Your task to perform on an android device: open app "Flipkart Online Shopping App" (install if not already installed) and go to login screen Image 0: 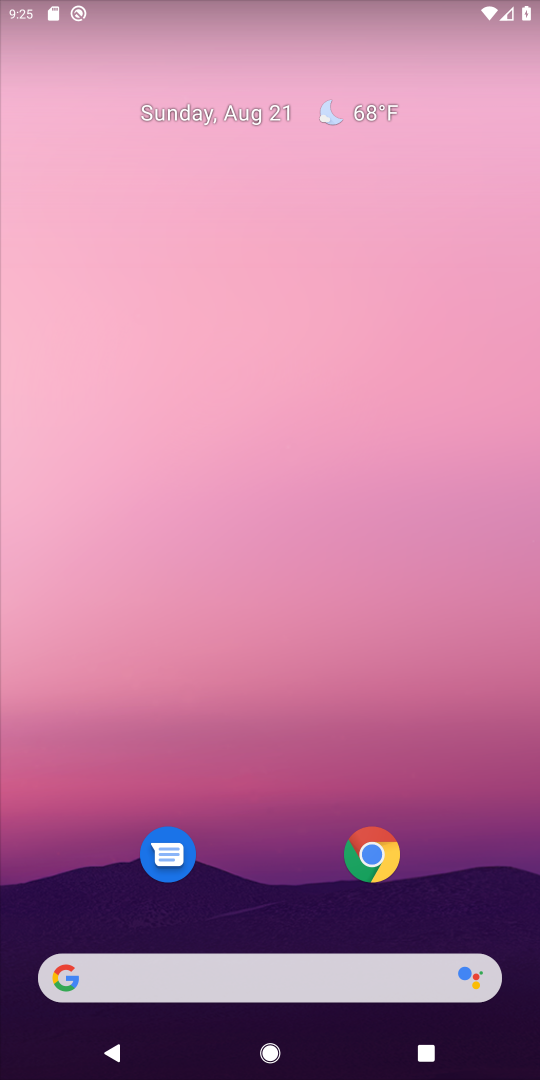
Step 0: drag from (302, 753) to (491, 1)
Your task to perform on an android device: open app "Flipkart Online Shopping App" (install if not already installed) and go to login screen Image 1: 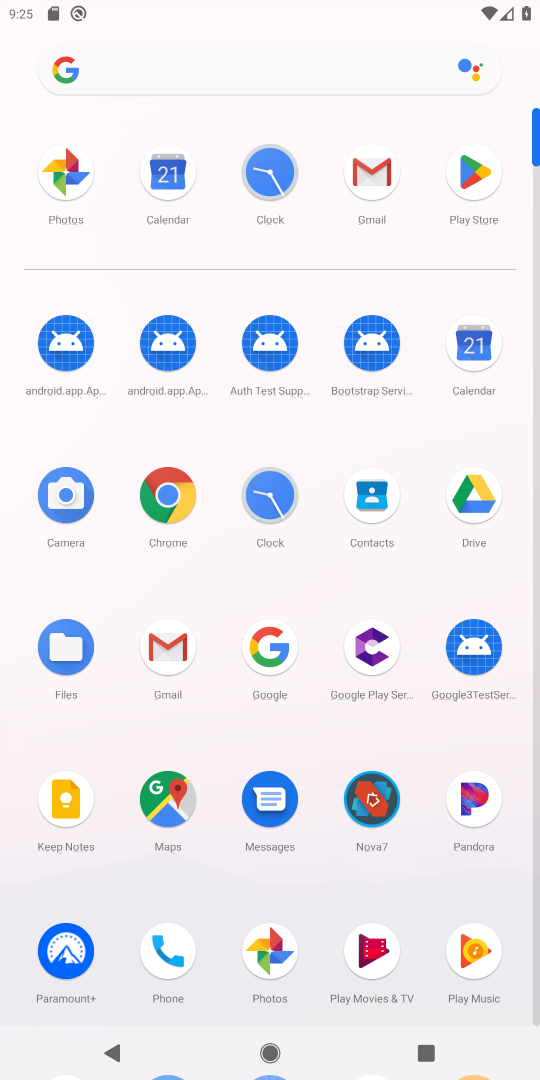
Step 1: click (471, 188)
Your task to perform on an android device: open app "Flipkart Online Shopping App" (install if not already installed) and go to login screen Image 2: 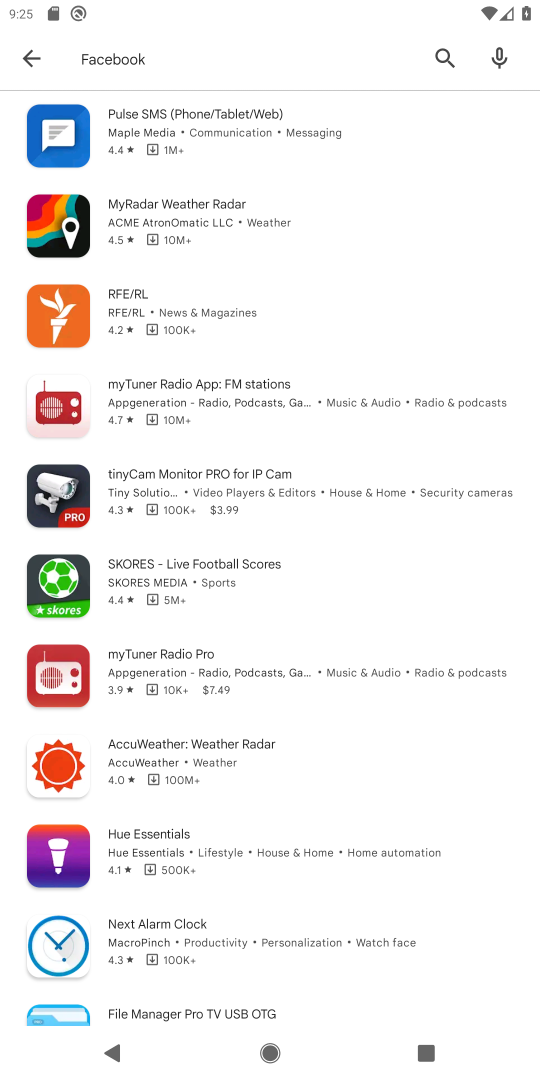
Step 2: click (446, 73)
Your task to perform on an android device: open app "Flipkart Online Shopping App" (install if not already installed) and go to login screen Image 3: 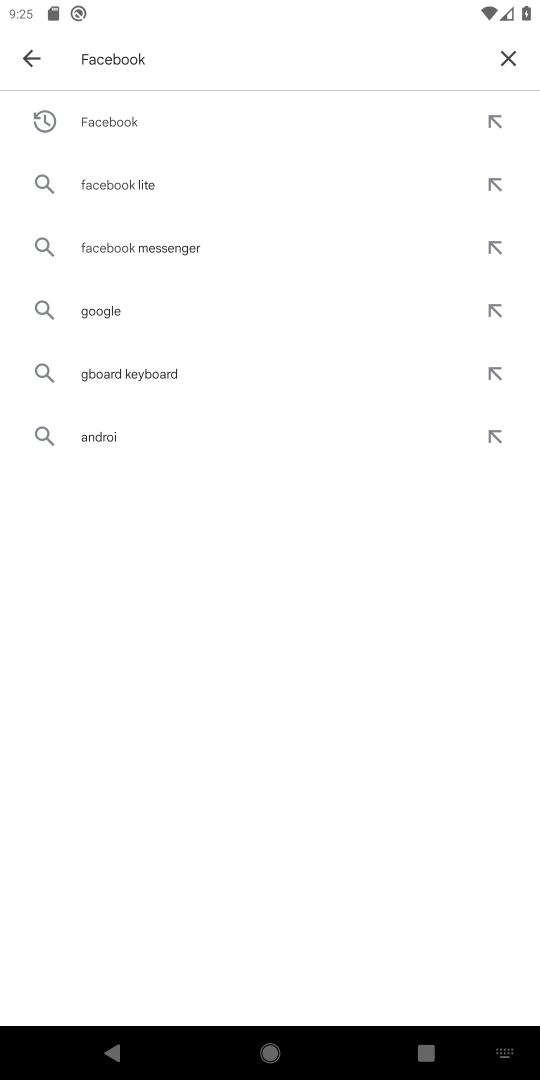
Step 3: click (516, 63)
Your task to perform on an android device: open app "Flipkart Online Shopping App" (install if not already installed) and go to login screen Image 4: 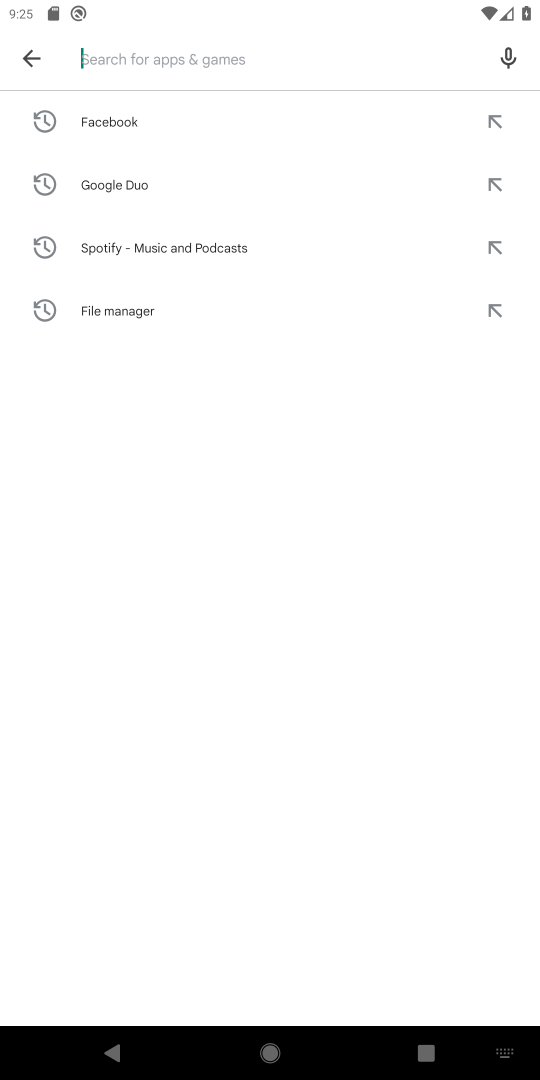
Step 4: type "flipkart"
Your task to perform on an android device: open app "Flipkart Online Shopping App" (install if not already installed) and go to login screen Image 5: 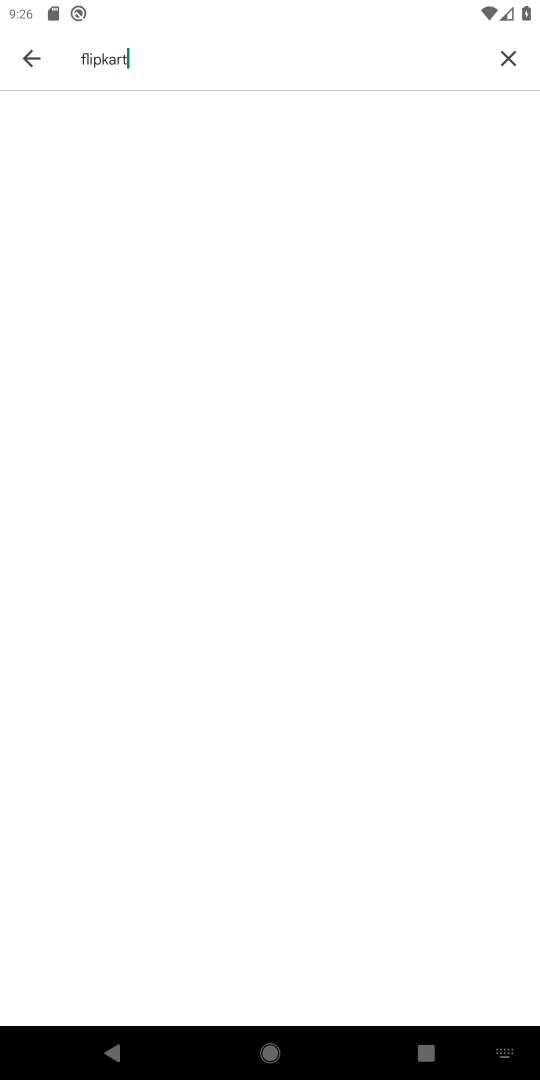
Step 5: task complete